Your task to perform on an android device: What is the recent news? Image 0: 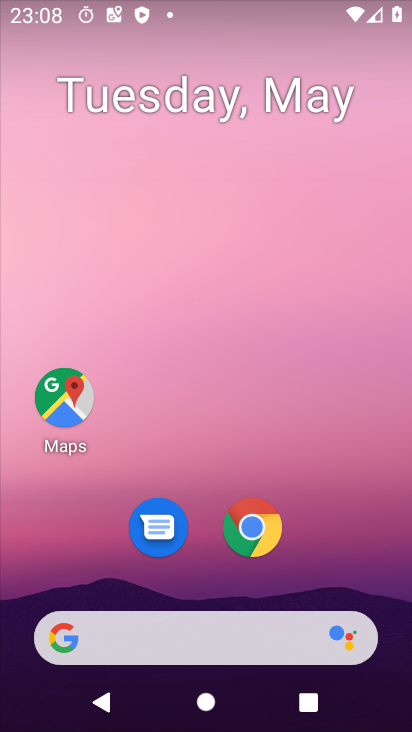
Step 0: drag from (180, 580) to (187, 325)
Your task to perform on an android device: What is the recent news? Image 1: 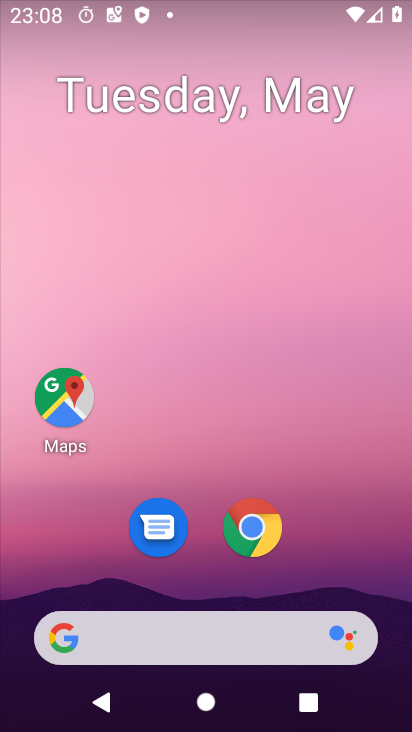
Step 1: drag from (213, 573) to (217, 300)
Your task to perform on an android device: What is the recent news? Image 2: 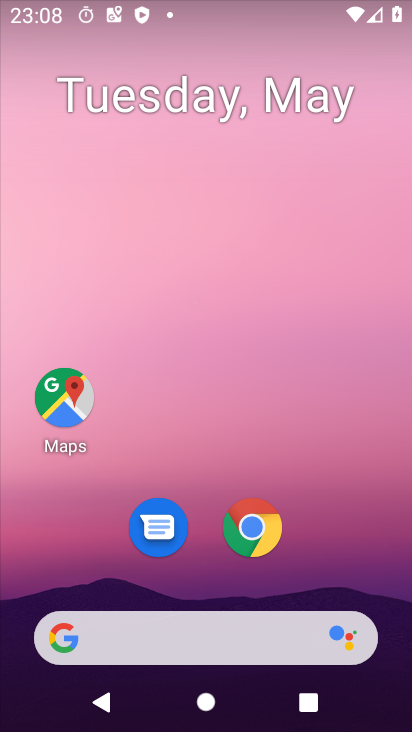
Step 2: drag from (241, 541) to (273, 326)
Your task to perform on an android device: What is the recent news? Image 3: 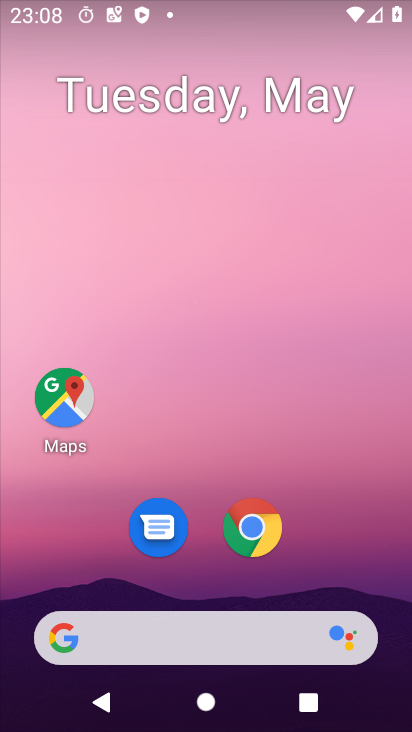
Step 3: drag from (202, 531) to (219, 158)
Your task to perform on an android device: What is the recent news? Image 4: 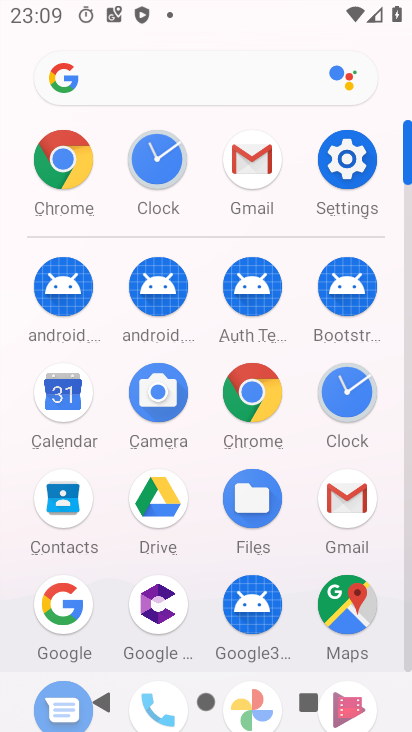
Step 4: click (194, 87)
Your task to perform on an android device: What is the recent news? Image 5: 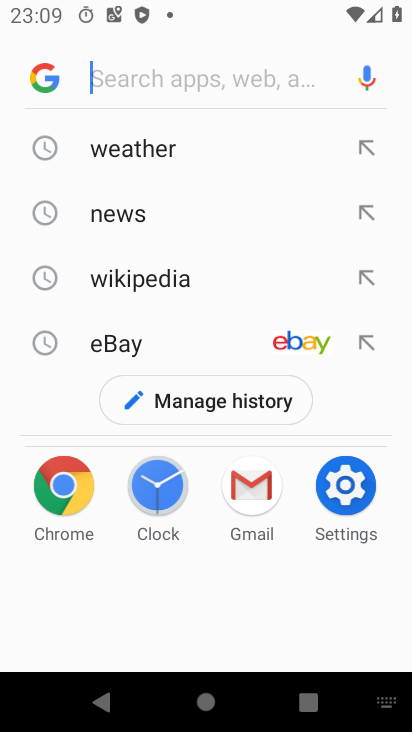
Step 5: type "recent news?"
Your task to perform on an android device: What is the recent news? Image 6: 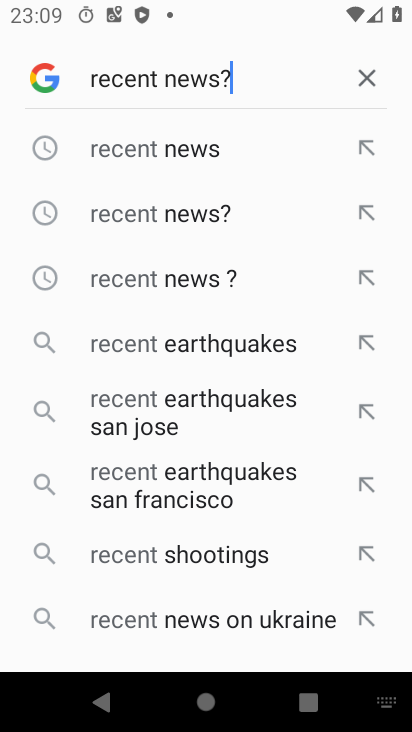
Step 6: type ""
Your task to perform on an android device: What is the recent news? Image 7: 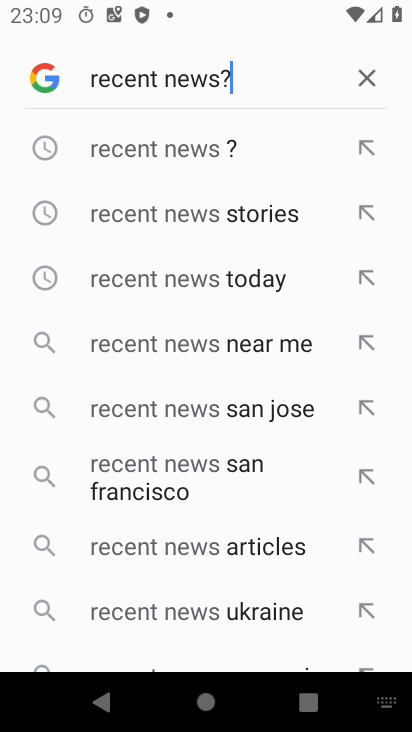
Step 7: click (153, 171)
Your task to perform on an android device: What is the recent news? Image 8: 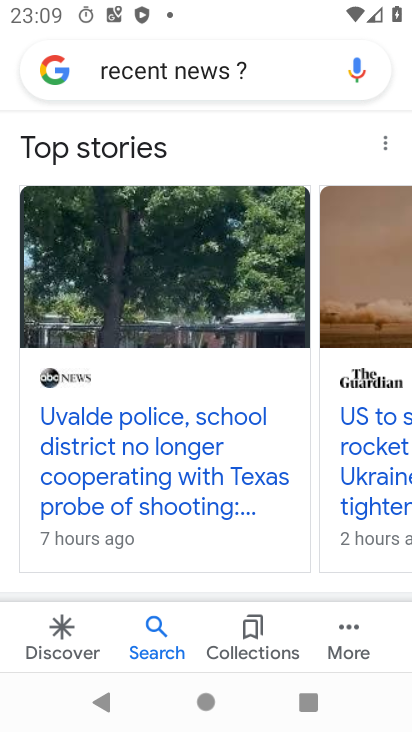
Step 8: task complete